Your task to perform on an android device: open the mobile data screen to see how much data has been used Image 0: 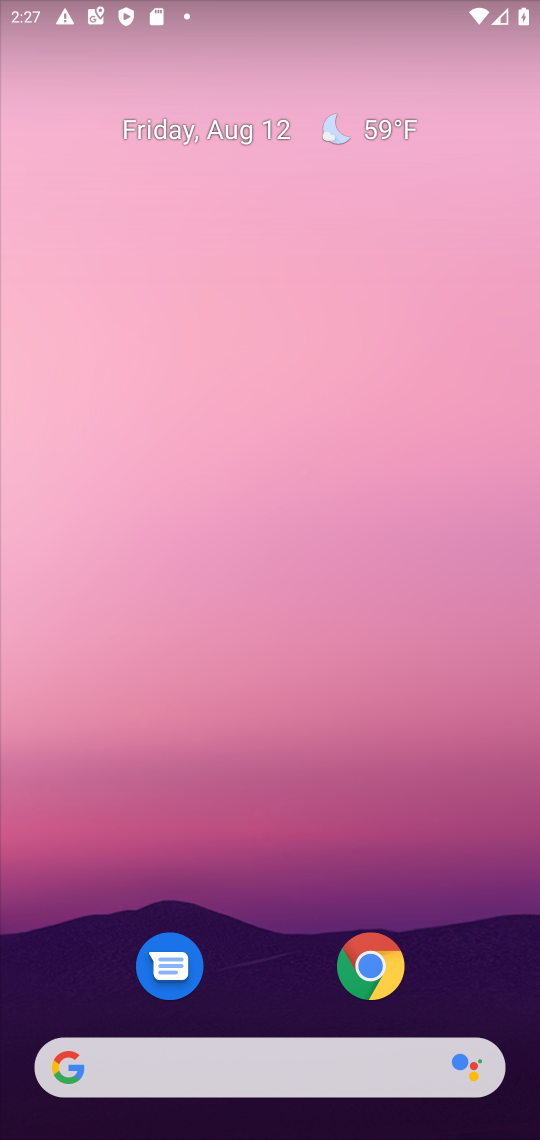
Step 0: drag from (282, 973) to (322, 146)
Your task to perform on an android device: open the mobile data screen to see how much data has been used Image 1: 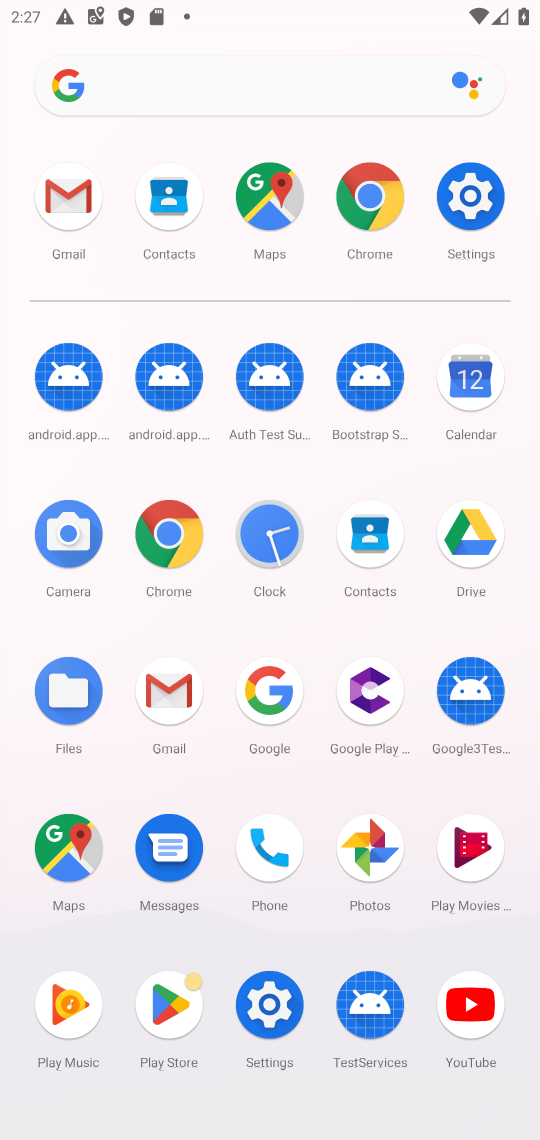
Step 1: click (265, 1017)
Your task to perform on an android device: open the mobile data screen to see how much data has been used Image 2: 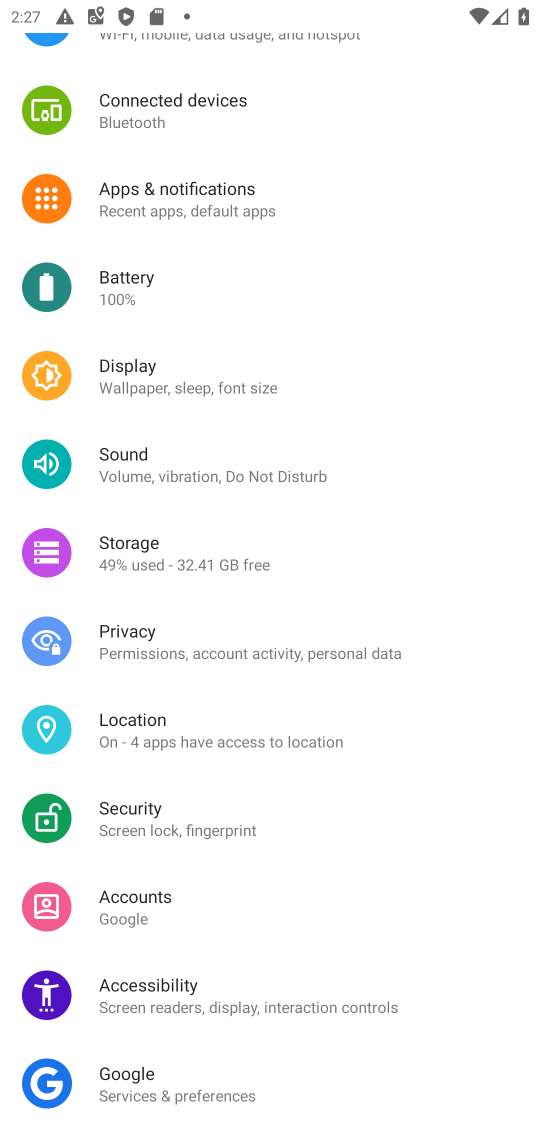
Step 2: drag from (294, 140) to (235, 847)
Your task to perform on an android device: open the mobile data screen to see how much data has been used Image 3: 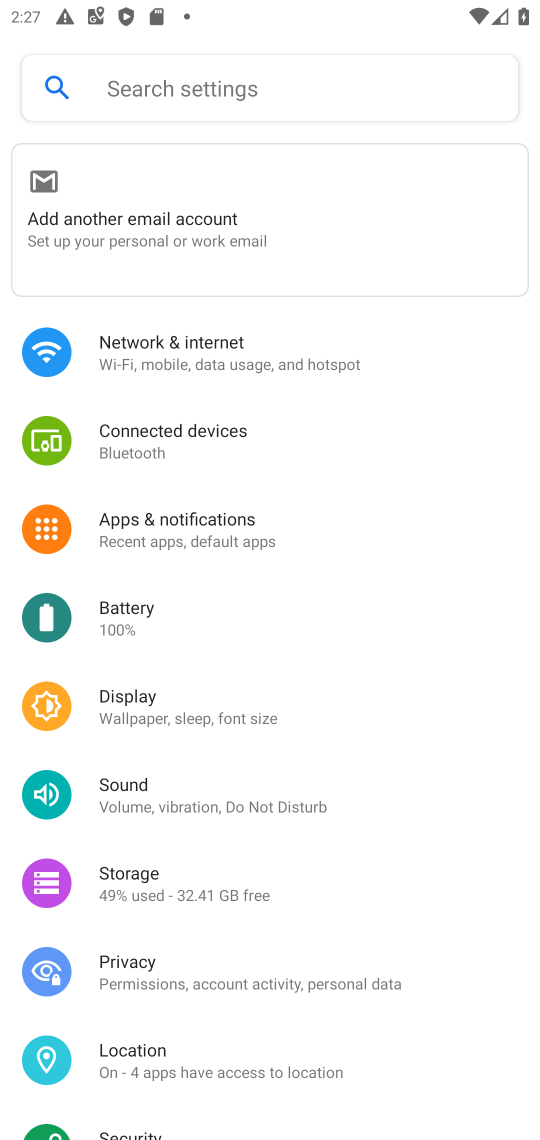
Step 3: click (185, 337)
Your task to perform on an android device: open the mobile data screen to see how much data has been used Image 4: 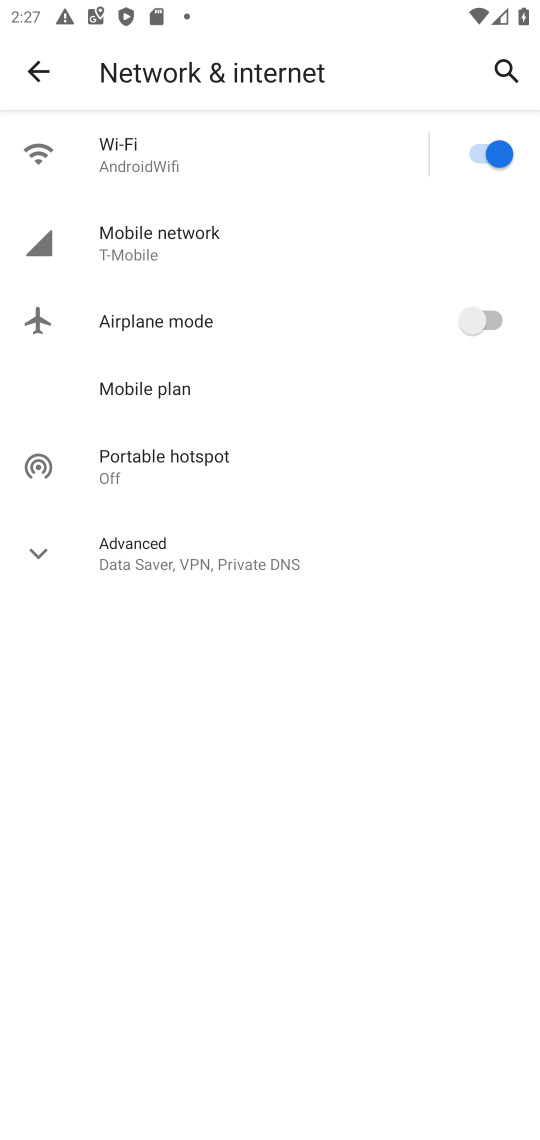
Step 4: click (109, 235)
Your task to perform on an android device: open the mobile data screen to see how much data has been used Image 5: 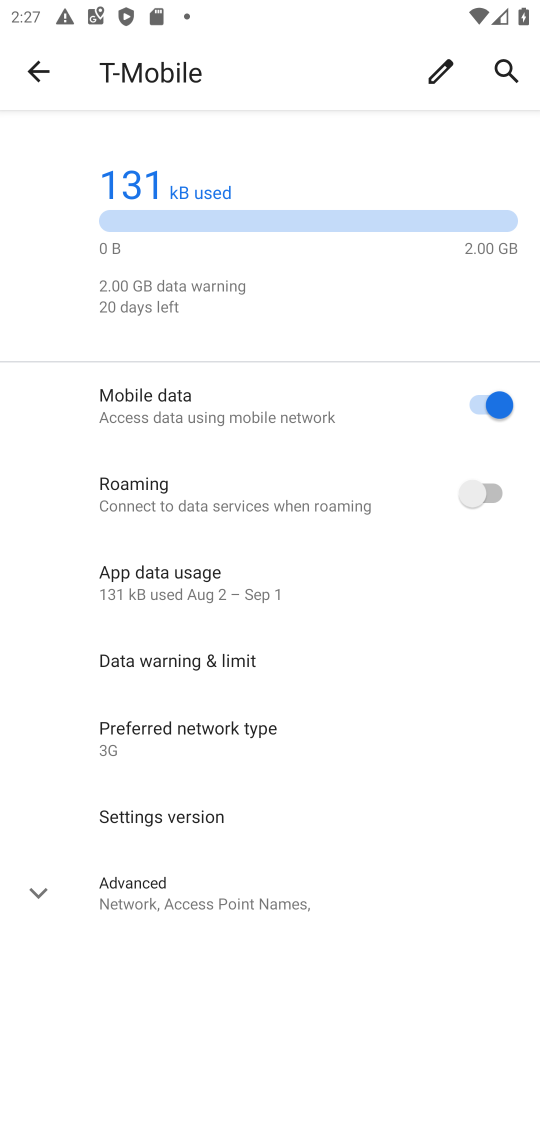
Step 5: task complete